Your task to perform on an android device: Open Android settings Image 0: 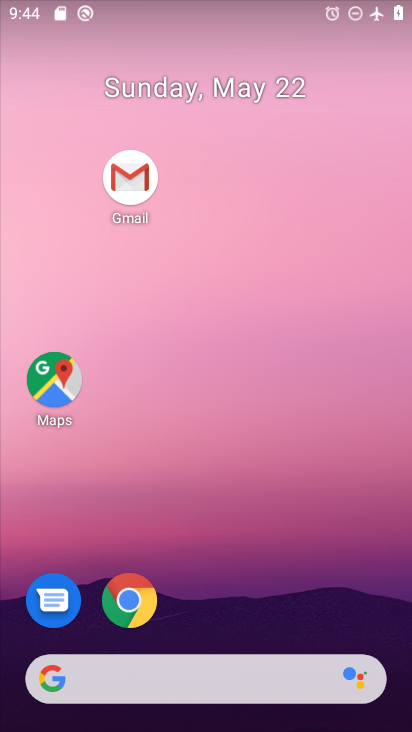
Step 0: drag from (171, 648) to (226, 138)
Your task to perform on an android device: Open Android settings Image 1: 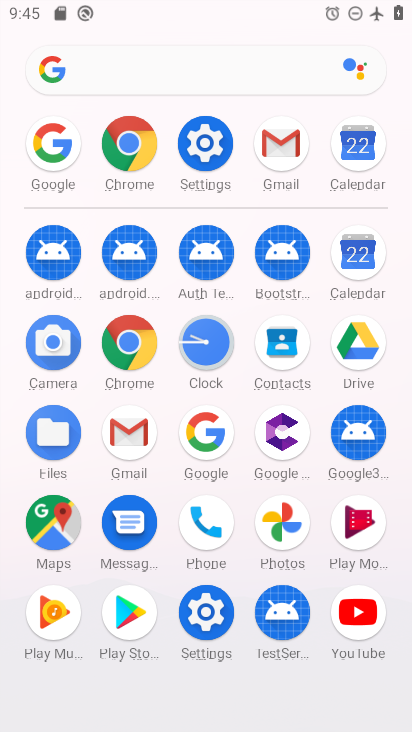
Step 1: click (207, 151)
Your task to perform on an android device: Open Android settings Image 2: 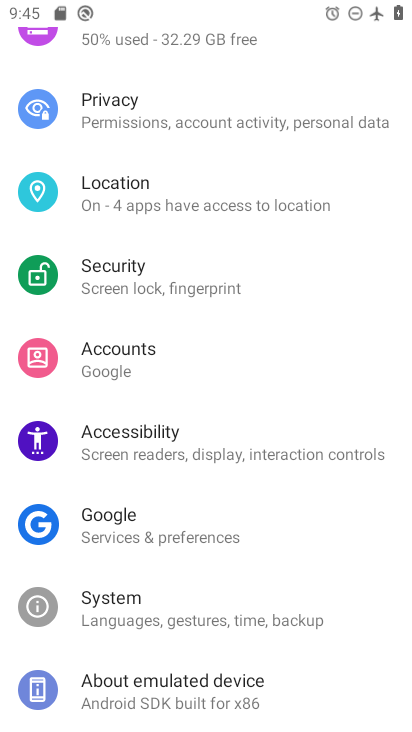
Step 2: drag from (158, 593) to (214, 194)
Your task to perform on an android device: Open Android settings Image 3: 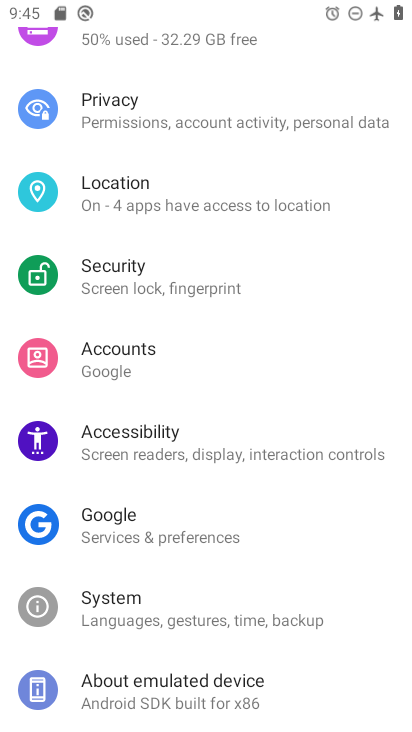
Step 3: drag from (228, 567) to (258, 242)
Your task to perform on an android device: Open Android settings Image 4: 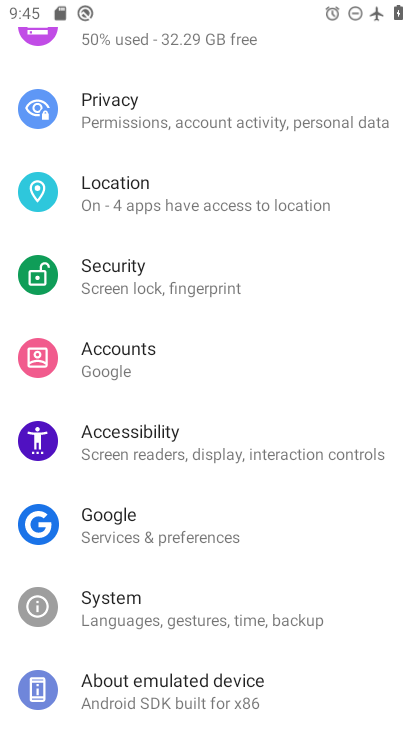
Step 4: click (209, 689)
Your task to perform on an android device: Open Android settings Image 5: 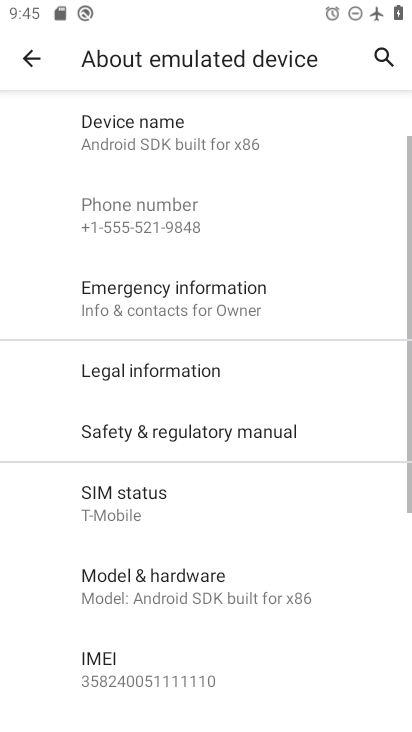
Step 5: drag from (187, 583) to (232, 279)
Your task to perform on an android device: Open Android settings Image 6: 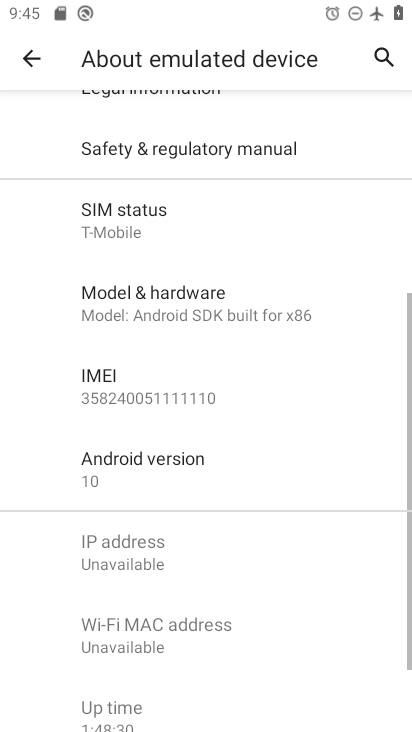
Step 6: click (176, 471)
Your task to perform on an android device: Open Android settings Image 7: 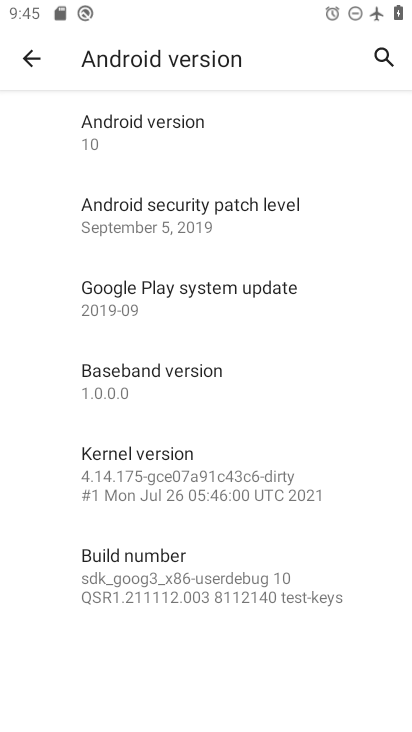
Step 7: click (202, 133)
Your task to perform on an android device: Open Android settings Image 8: 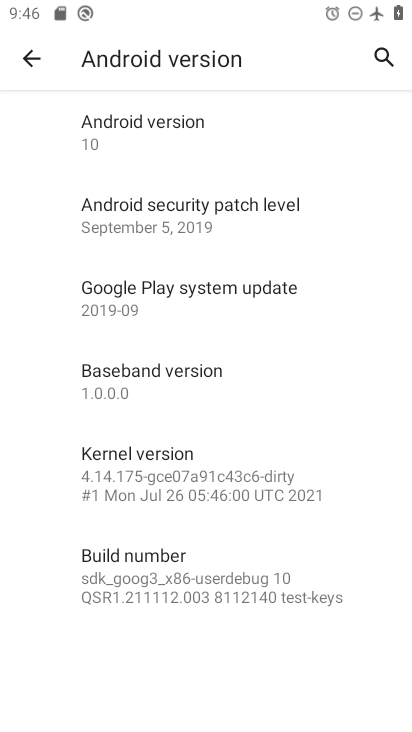
Step 8: task complete